Your task to perform on an android device: Open Youtube and go to the subscriptions tab Image 0: 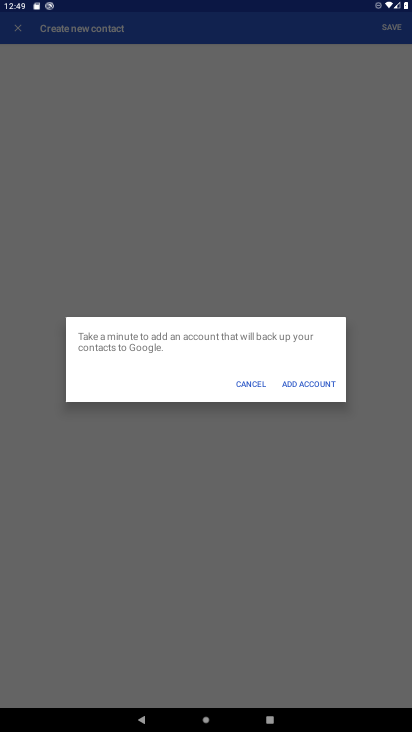
Step 0: press home button
Your task to perform on an android device: Open Youtube and go to the subscriptions tab Image 1: 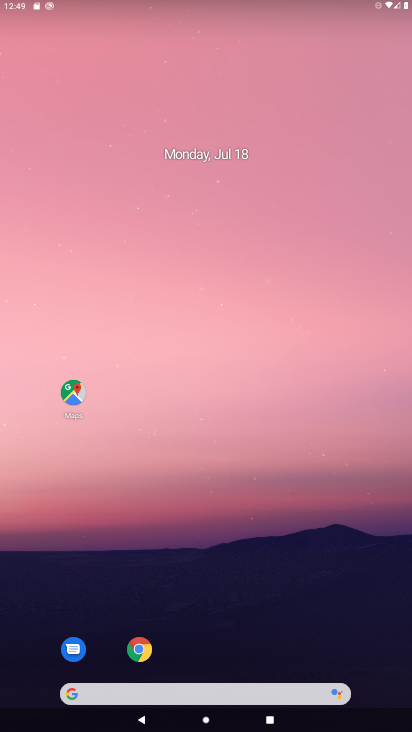
Step 1: drag from (107, 368) to (219, 108)
Your task to perform on an android device: Open Youtube and go to the subscriptions tab Image 2: 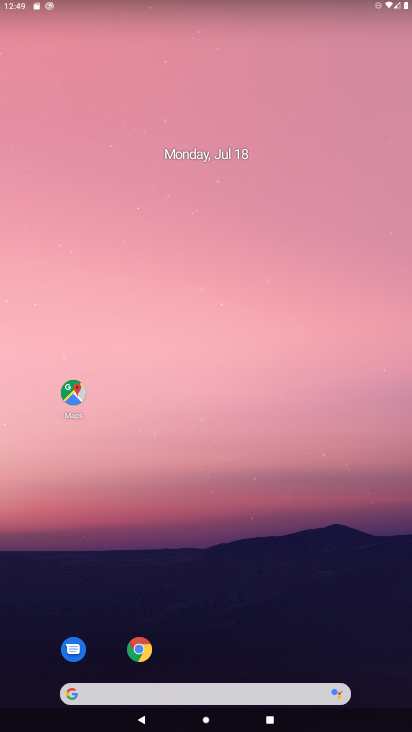
Step 2: drag from (27, 690) to (183, 96)
Your task to perform on an android device: Open Youtube and go to the subscriptions tab Image 3: 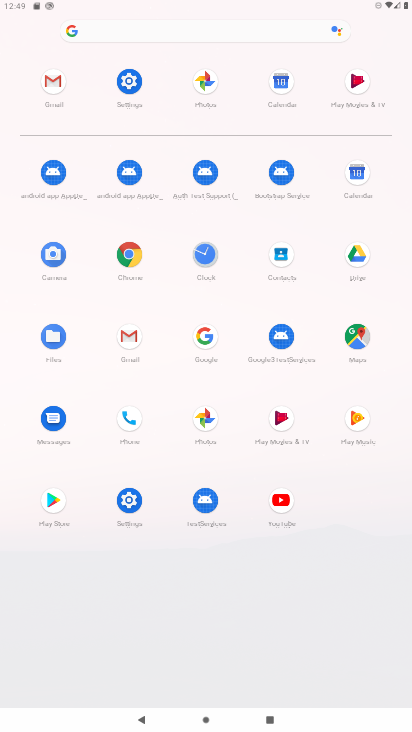
Step 3: click (293, 499)
Your task to perform on an android device: Open Youtube and go to the subscriptions tab Image 4: 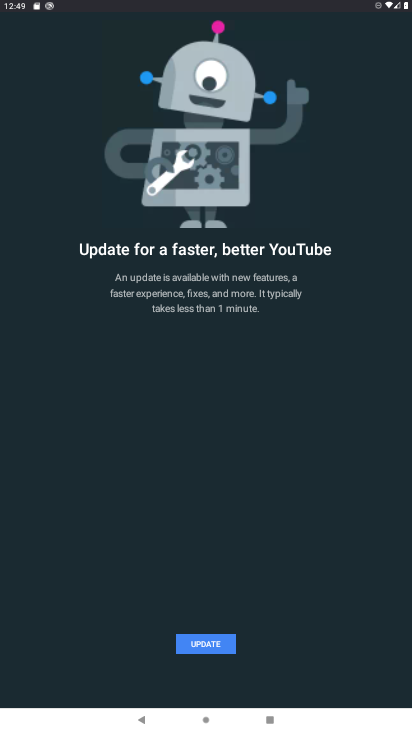
Step 4: click (201, 641)
Your task to perform on an android device: Open Youtube and go to the subscriptions tab Image 5: 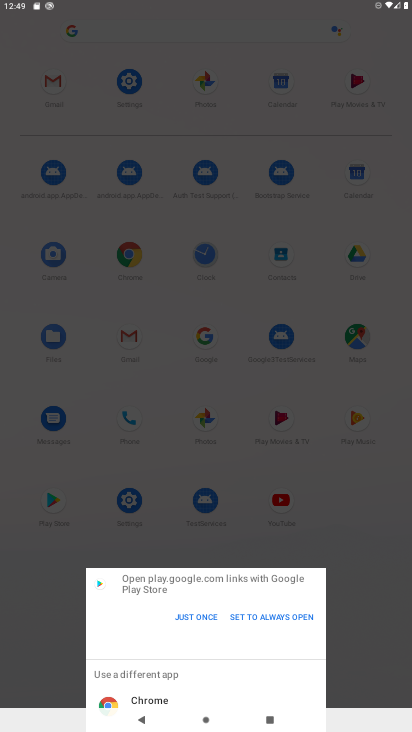
Step 5: click (190, 622)
Your task to perform on an android device: Open Youtube and go to the subscriptions tab Image 6: 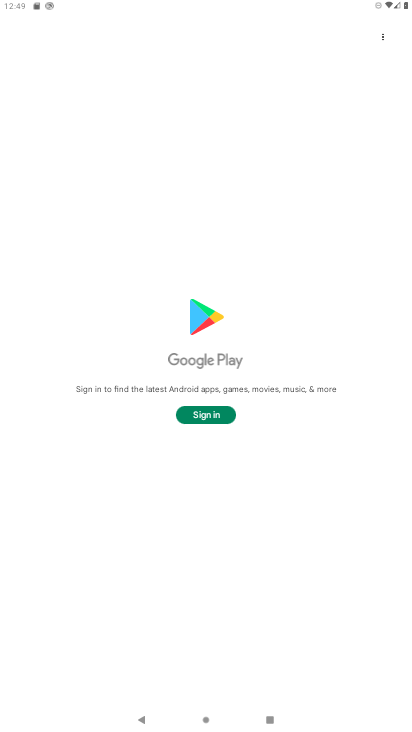
Step 6: click (217, 408)
Your task to perform on an android device: Open Youtube and go to the subscriptions tab Image 7: 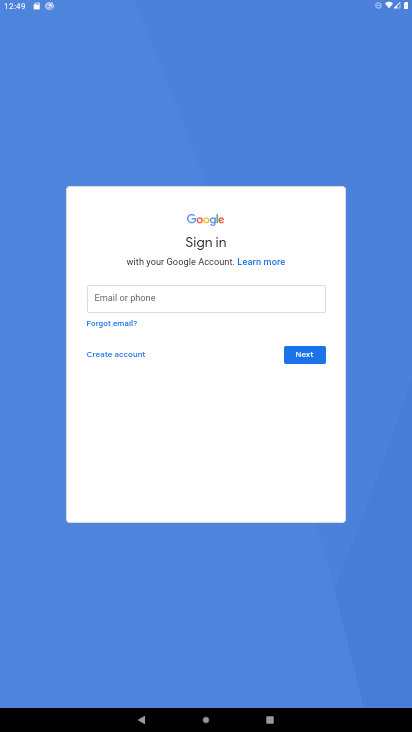
Step 7: task complete